Your task to perform on an android device: add a contact in the contacts app Image 0: 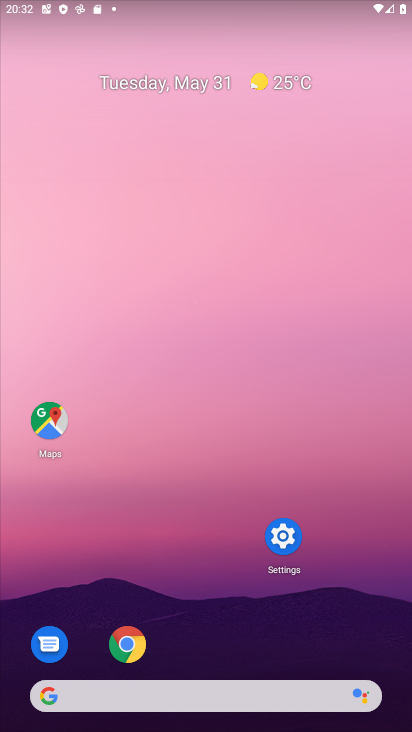
Step 0: drag from (233, 714) to (259, 341)
Your task to perform on an android device: add a contact in the contacts app Image 1: 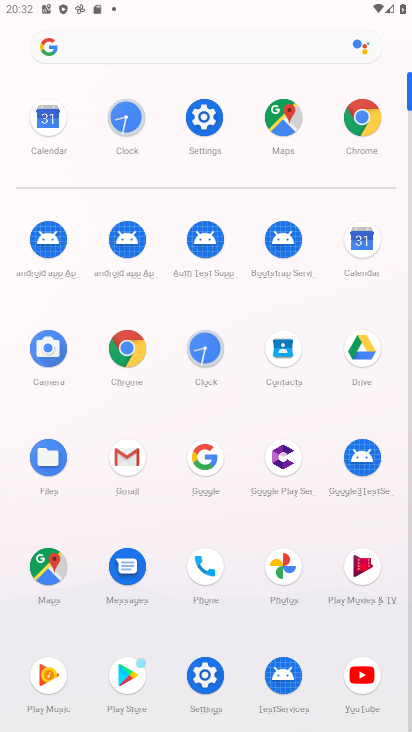
Step 1: click (201, 572)
Your task to perform on an android device: add a contact in the contacts app Image 2: 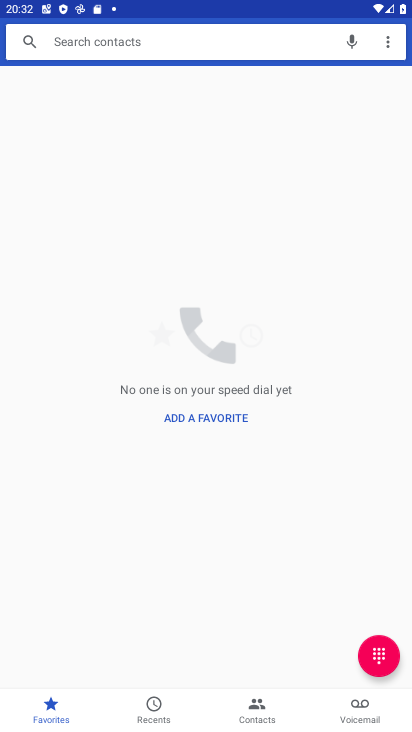
Step 2: click (250, 706)
Your task to perform on an android device: add a contact in the contacts app Image 3: 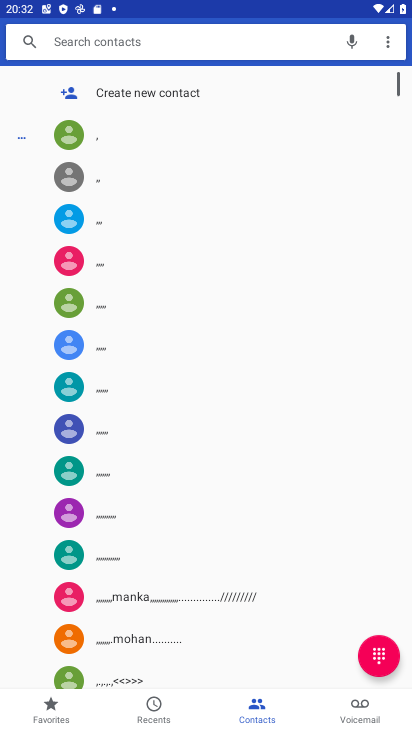
Step 3: click (250, 706)
Your task to perform on an android device: add a contact in the contacts app Image 4: 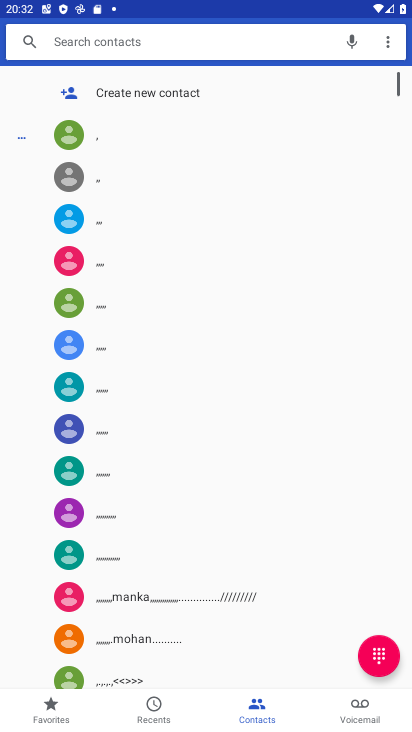
Step 4: click (120, 76)
Your task to perform on an android device: add a contact in the contacts app Image 5: 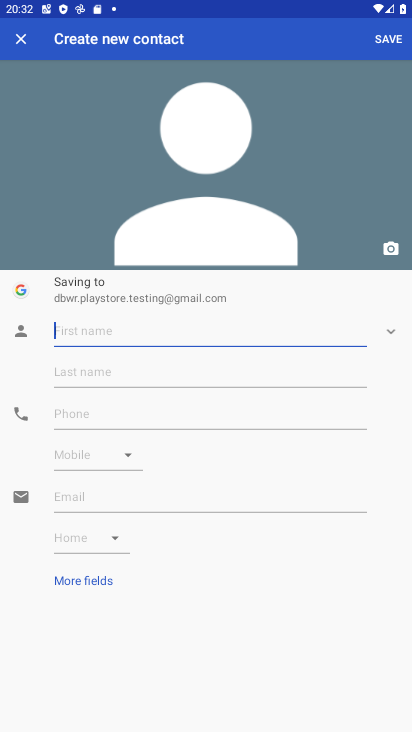
Step 5: click (120, 323)
Your task to perform on an android device: add a contact in the contacts app Image 6: 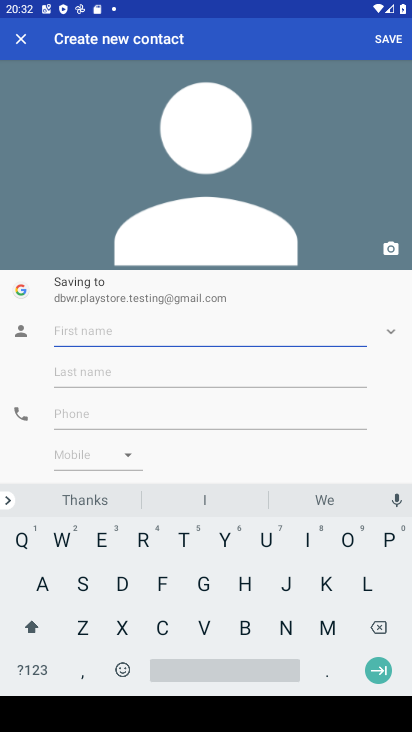
Step 6: click (216, 593)
Your task to perform on an android device: add a contact in the contacts app Image 7: 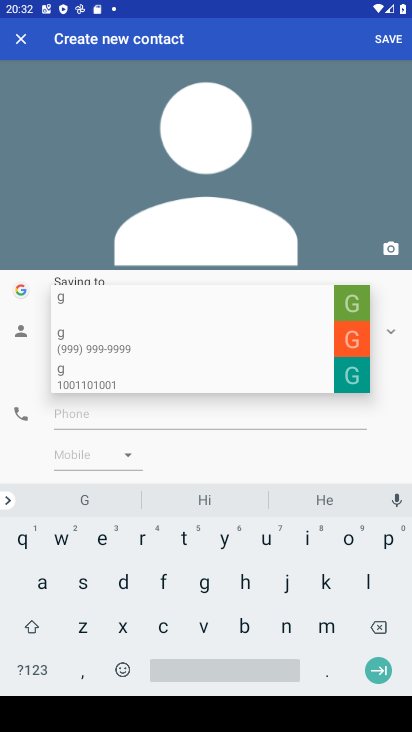
Step 7: click (105, 580)
Your task to perform on an android device: add a contact in the contacts app Image 8: 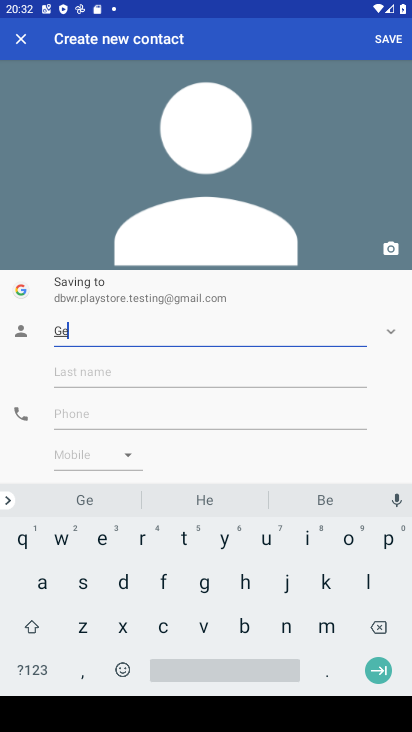
Step 8: click (226, 562)
Your task to perform on an android device: add a contact in the contacts app Image 9: 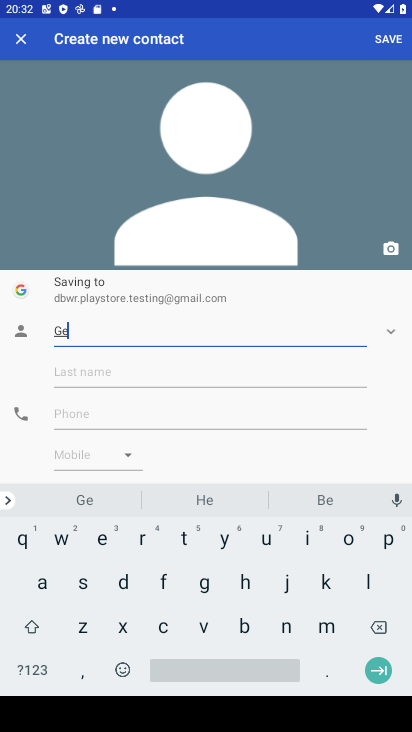
Step 9: click (226, 562)
Your task to perform on an android device: add a contact in the contacts app Image 10: 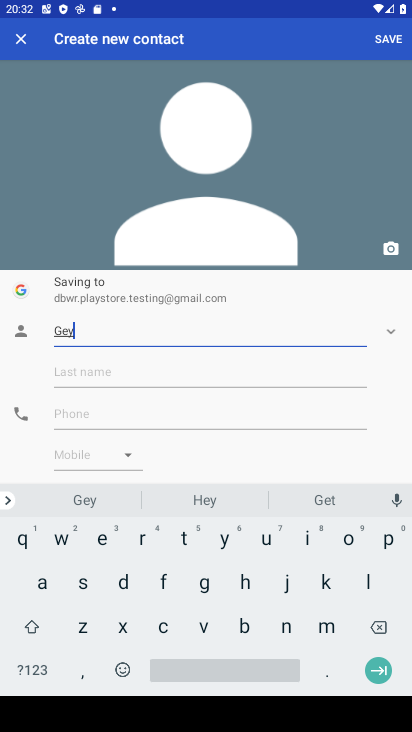
Step 10: click (226, 562)
Your task to perform on an android device: add a contact in the contacts app Image 11: 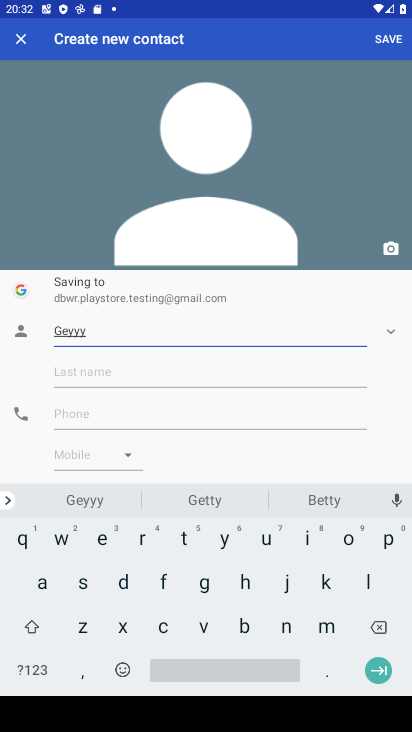
Step 11: click (91, 407)
Your task to perform on an android device: add a contact in the contacts app Image 12: 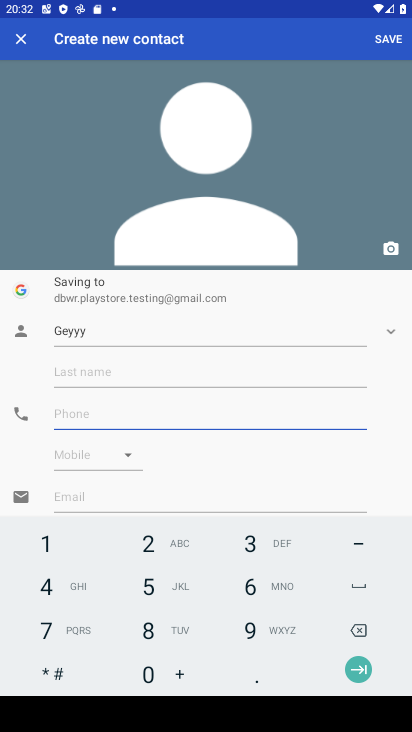
Step 12: click (156, 573)
Your task to perform on an android device: add a contact in the contacts app Image 13: 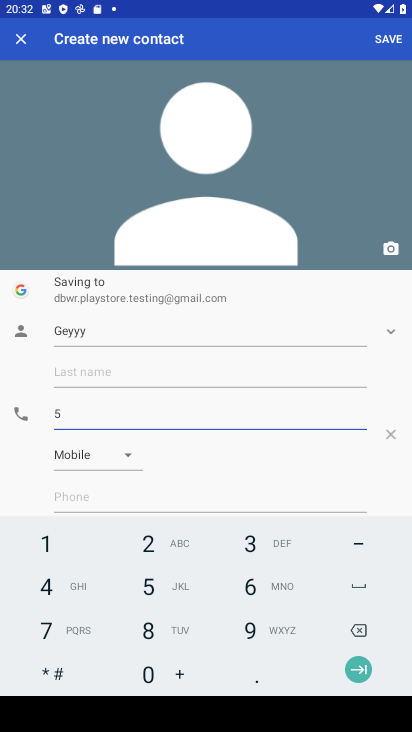
Step 13: click (398, 553)
Your task to perform on an android device: add a contact in the contacts app Image 14: 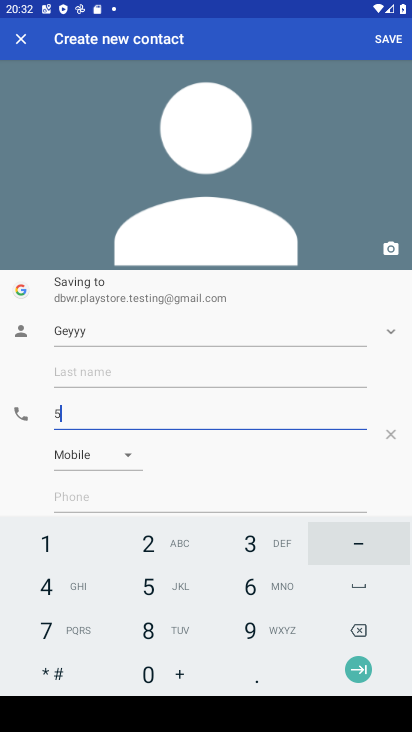
Step 14: click (141, 600)
Your task to perform on an android device: add a contact in the contacts app Image 15: 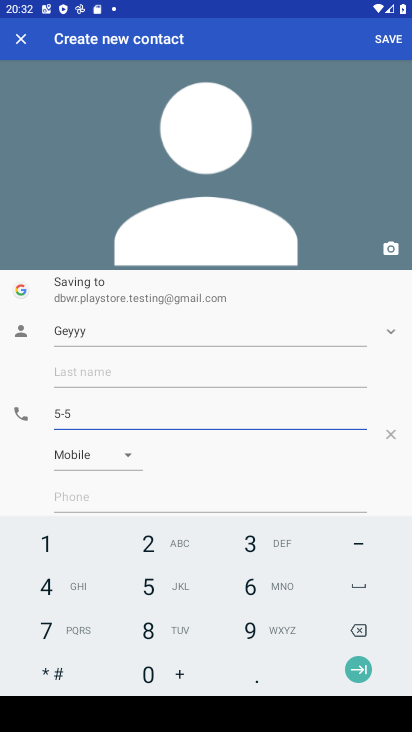
Step 15: click (255, 652)
Your task to perform on an android device: add a contact in the contacts app Image 16: 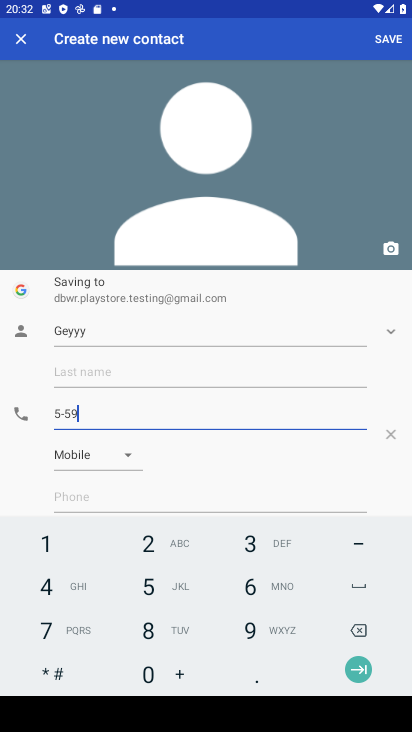
Step 16: click (255, 652)
Your task to perform on an android device: add a contact in the contacts app Image 17: 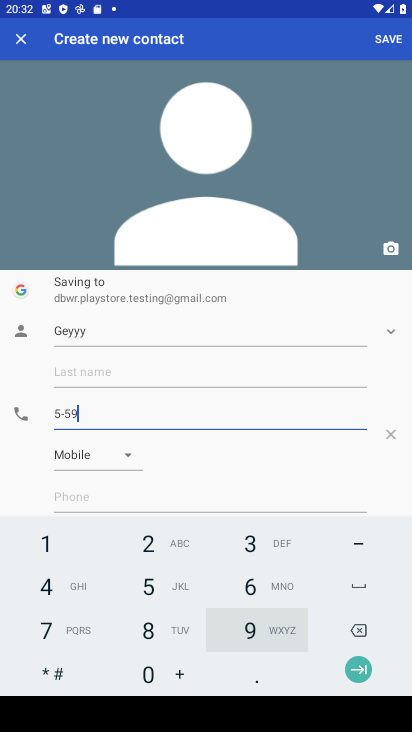
Step 17: click (255, 652)
Your task to perform on an android device: add a contact in the contacts app Image 18: 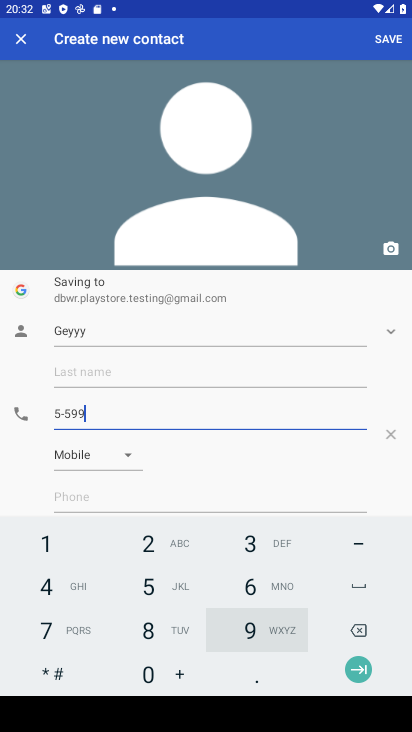
Step 18: drag from (266, 651) to (381, 639)
Your task to perform on an android device: add a contact in the contacts app Image 19: 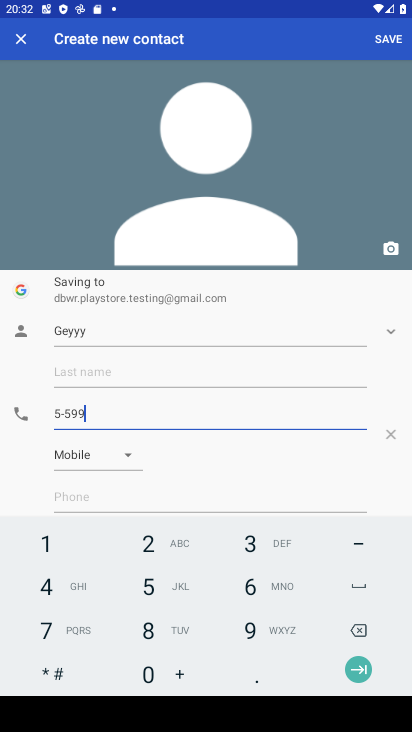
Step 19: click (381, 639)
Your task to perform on an android device: add a contact in the contacts app Image 20: 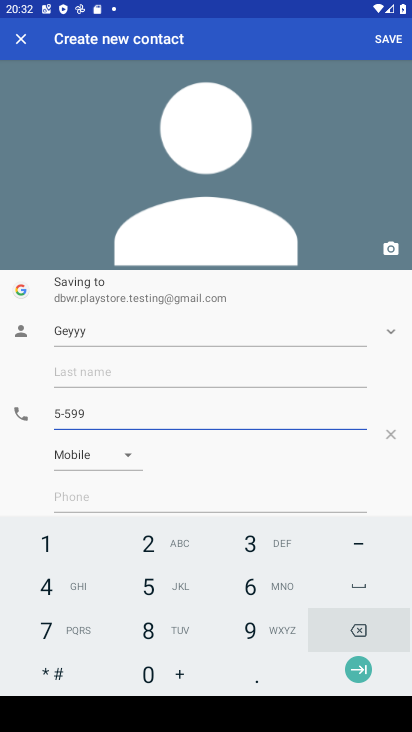
Step 20: click (381, 639)
Your task to perform on an android device: add a contact in the contacts app Image 21: 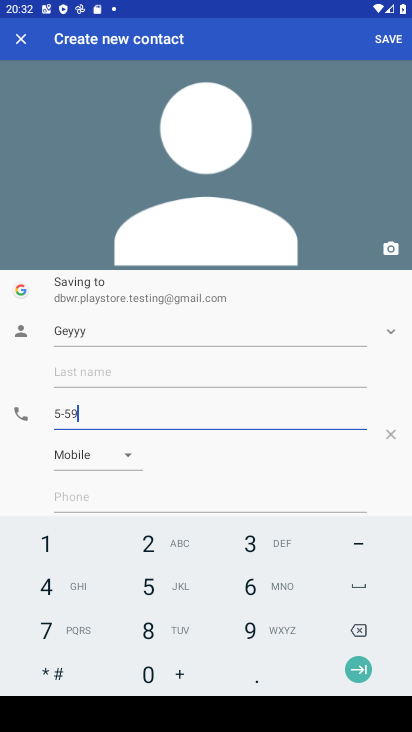
Step 21: click (381, 639)
Your task to perform on an android device: add a contact in the contacts app Image 22: 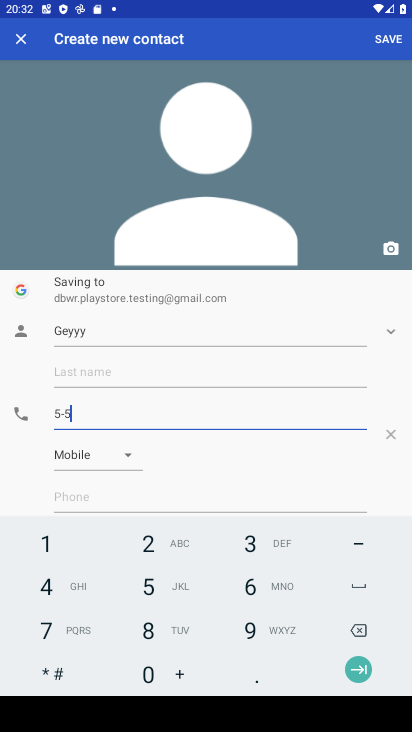
Step 22: click (381, 639)
Your task to perform on an android device: add a contact in the contacts app Image 23: 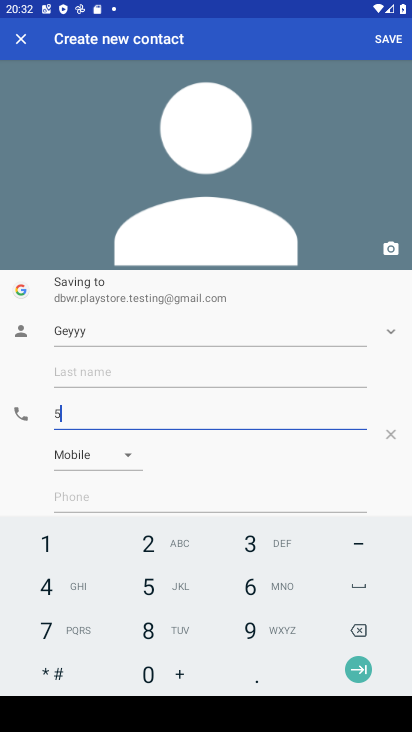
Step 23: click (239, 591)
Your task to perform on an android device: add a contact in the contacts app Image 24: 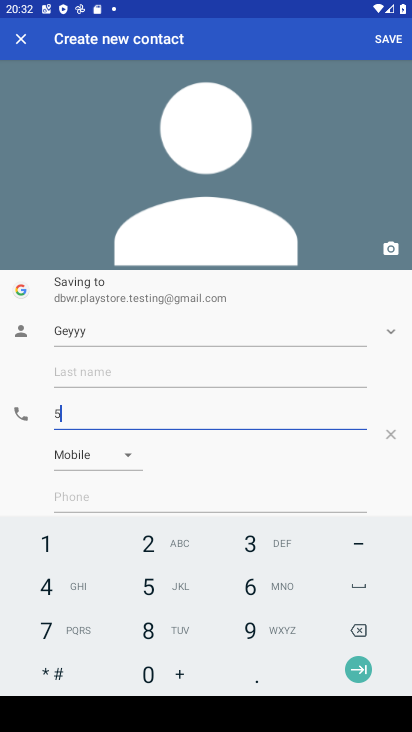
Step 24: click (239, 591)
Your task to perform on an android device: add a contact in the contacts app Image 25: 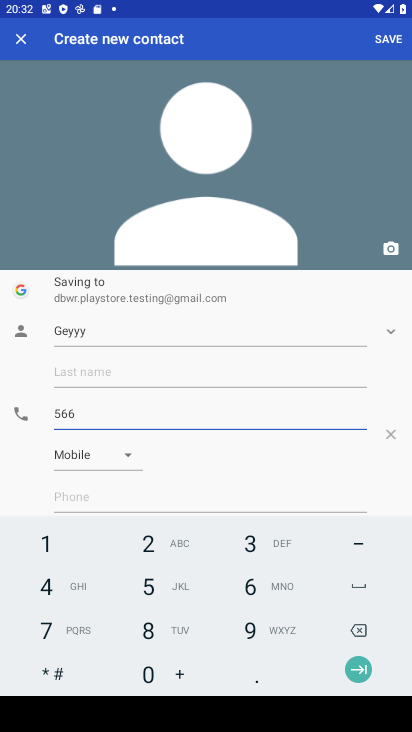
Step 25: click (134, 570)
Your task to perform on an android device: add a contact in the contacts app Image 26: 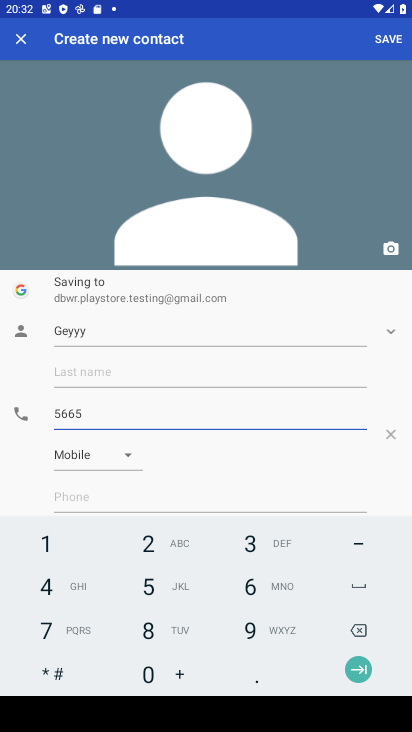
Step 26: click (72, 584)
Your task to perform on an android device: add a contact in the contacts app Image 27: 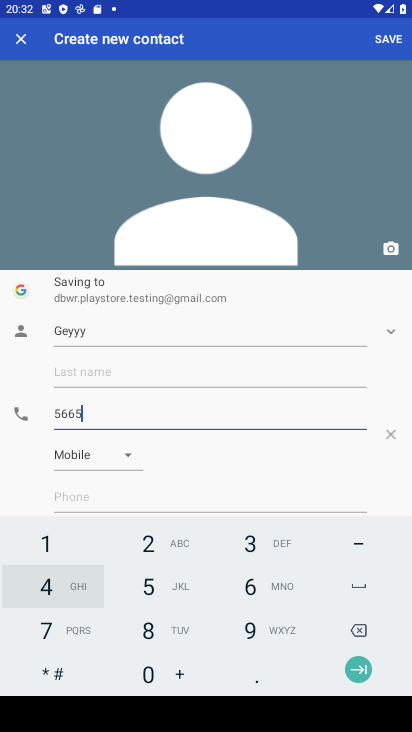
Step 27: click (72, 584)
Your task to perform on an android device: add a contact in the contacts app Image 28: 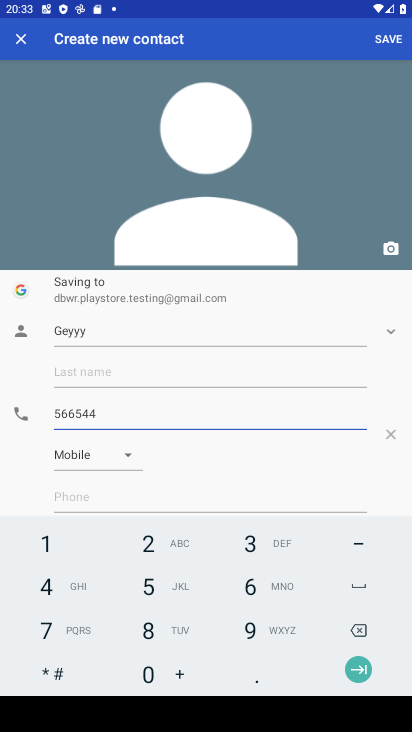
Step 28: click (230, 522)
Your task to perform on an android device: add a contact in the contacts app Image 29: 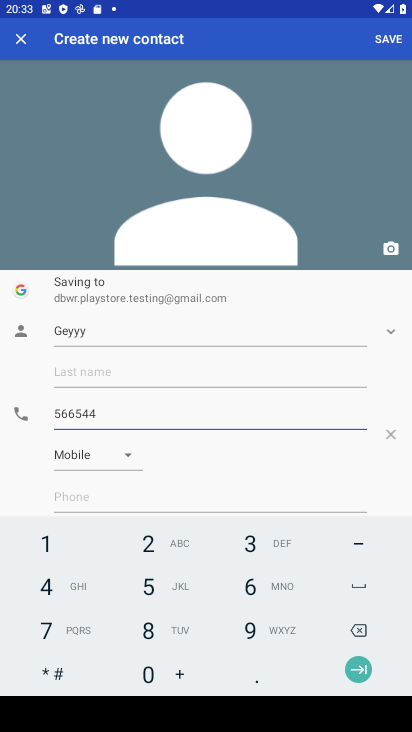
Step 29: click (230, 522)
Your task to perform on an android device: add a contact in the contacts app Image 30: 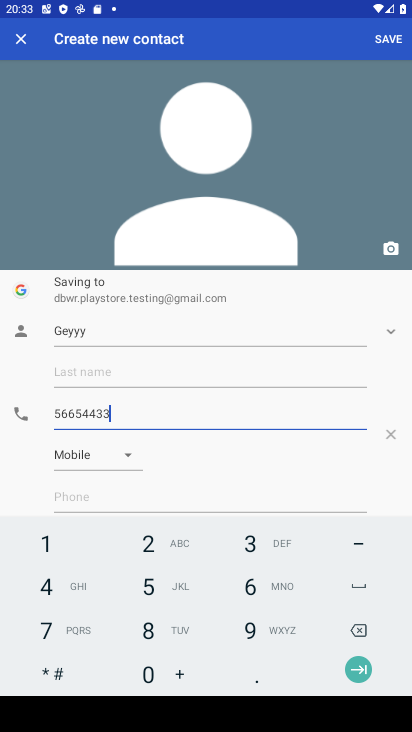
Step 30: click (390, 49)
Your task to perform on an android device: add a contact in the contacts app Image 31: 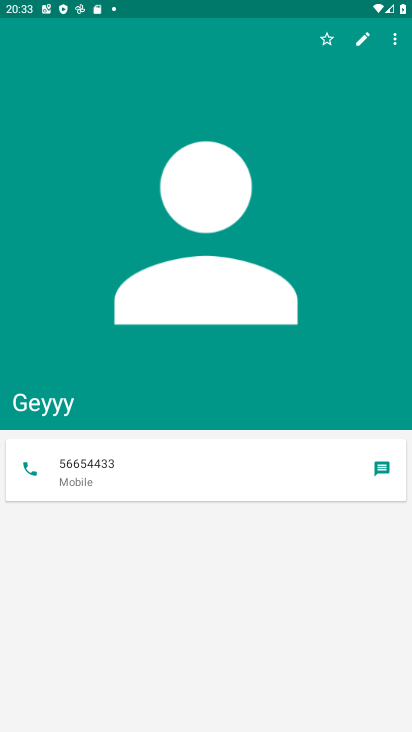
Step 31: task complete